Your task to perform on an android device: View the shopping cart on newegg.com. Add "razer thresher" to the cart on newegg.com, then select checkout. Image 0: 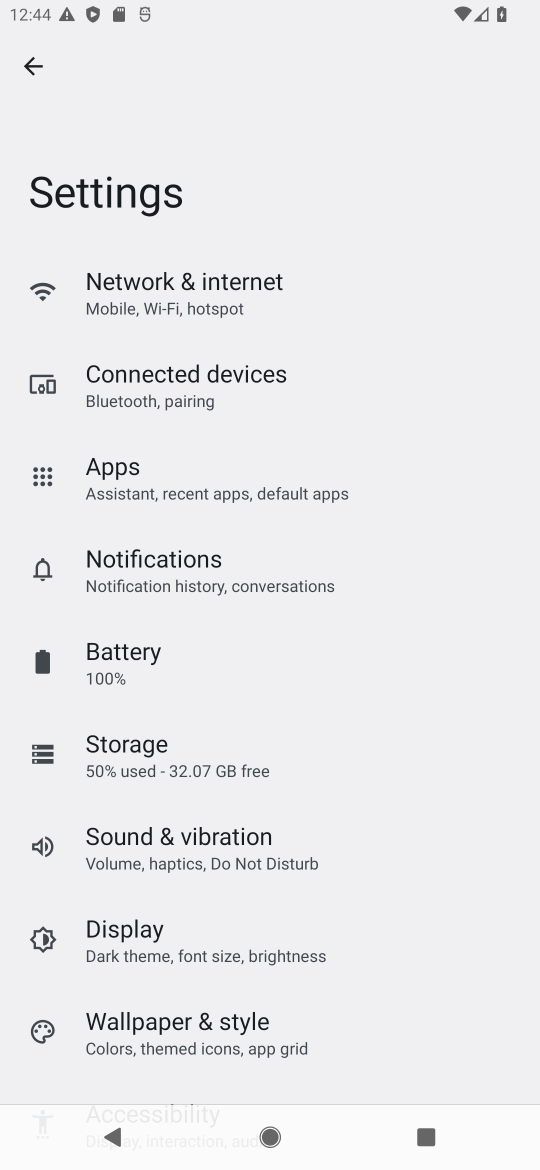
Step 0: press home button
Your task to perform on an android device: View the shopping cart on newegg.com. Add "razer thresher" to the cart on newegg.com, then select checkout. Image 1: 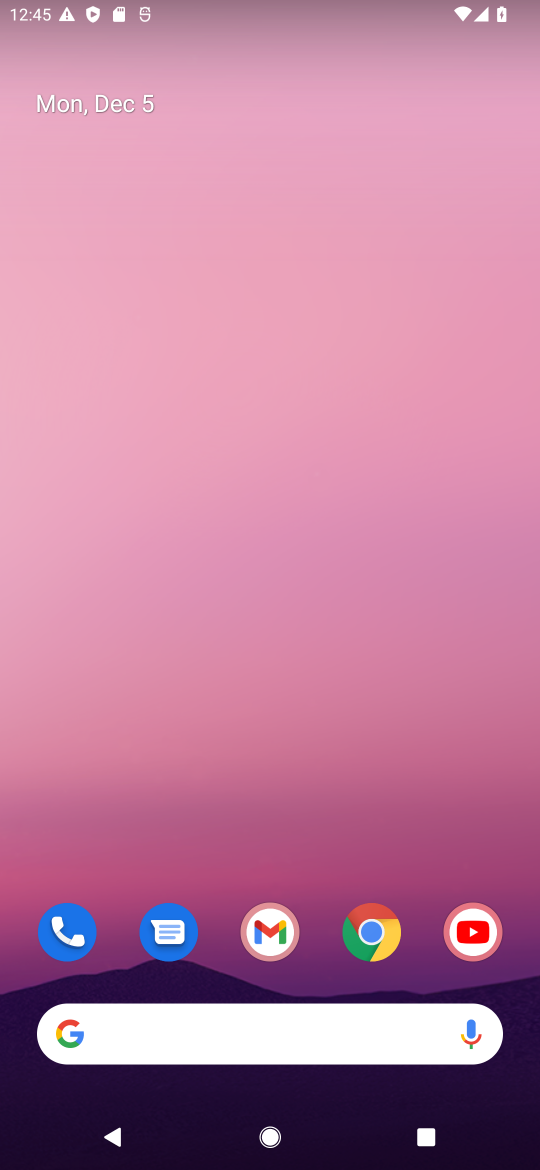
Step 1: click (366, 947)
Your task to perform on an android device: View the shopping cart on newegg.com. Add "razer thresher" to the cart on newegg.com, then select checkout. Image 2: 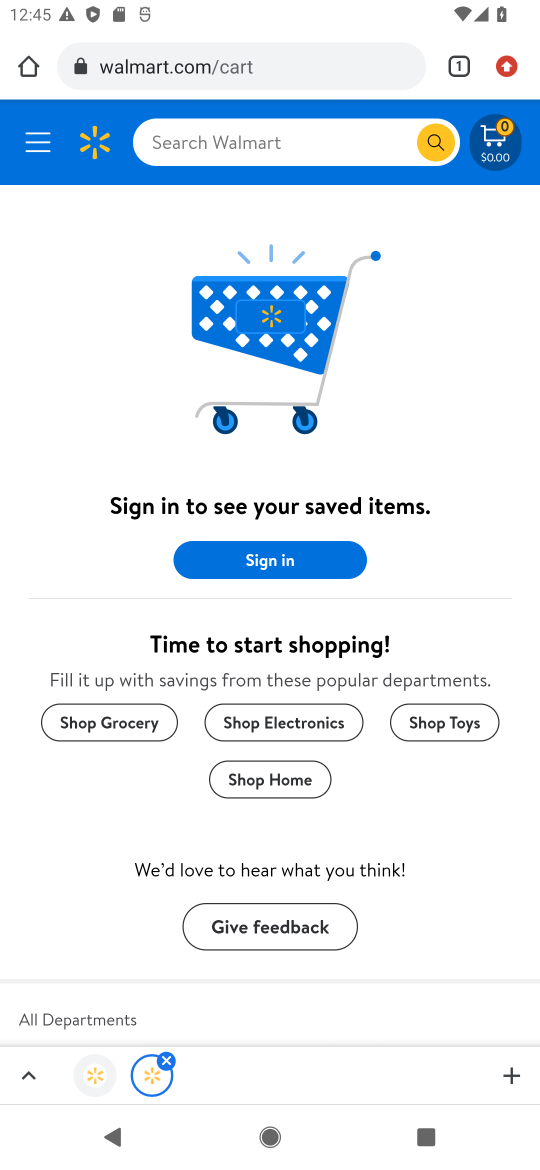
Step 2: click (204, 66)
Your task to perform on an android device: View the shopping cart on newegg.com. Add "razer thresher" to the cart on newegg.com, then select checkout. Image 3: 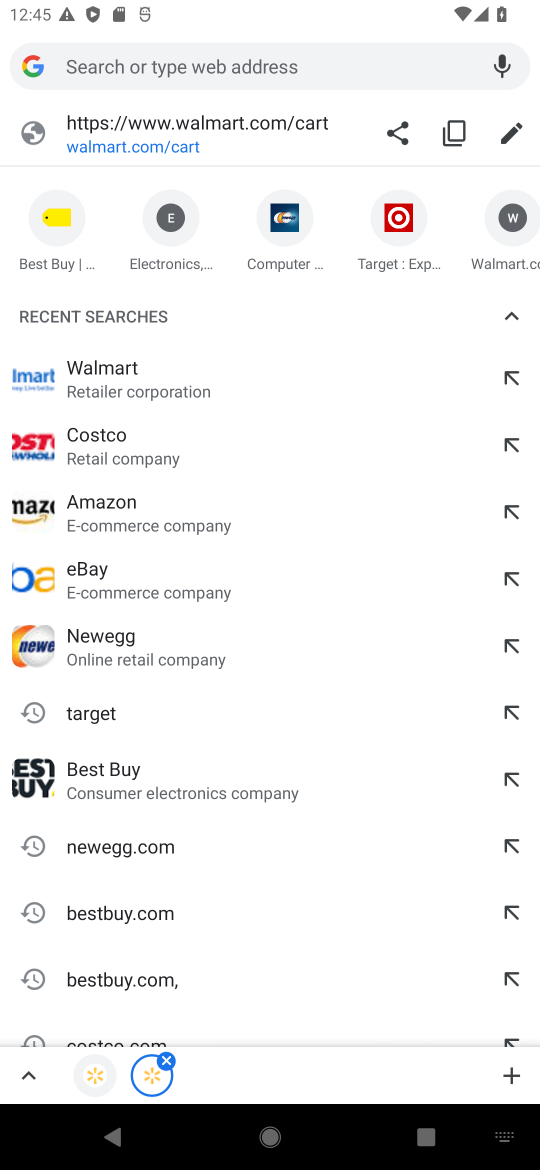
Step 3: type "newegg.com"
Your task to perform on an android device: View the shopping cart on newegg.com. Add "razer thresher" to the cart on newegg.com, then select checkout. Image 4: 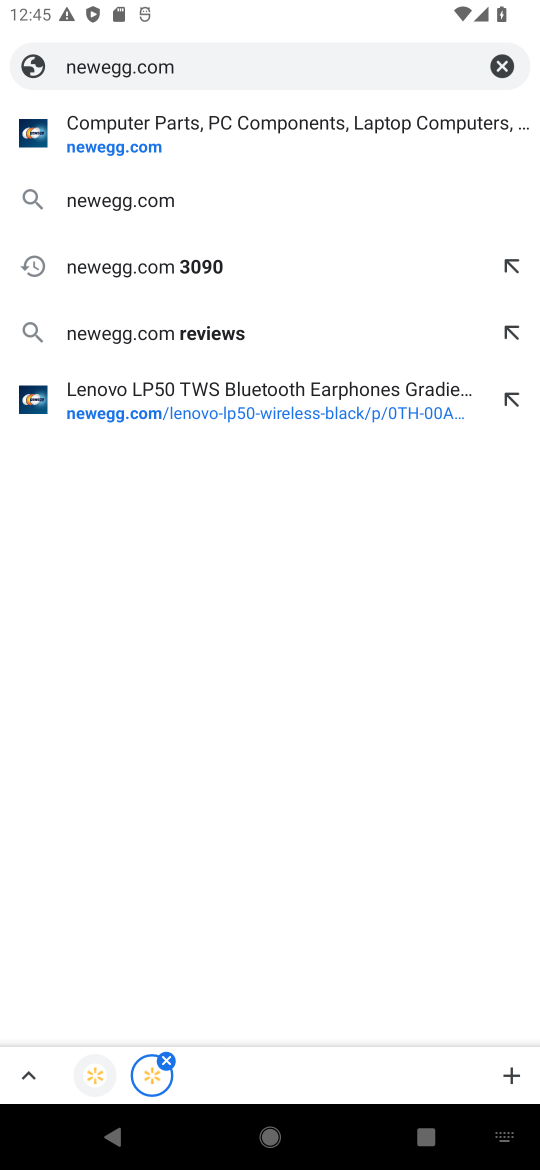
Step 4: click (126, 139)
Your task to perform on an android device: View the shopping cart on newegg.com. Add "razer thresher" to the cart on newegg.com, then select checkout. Image 5: 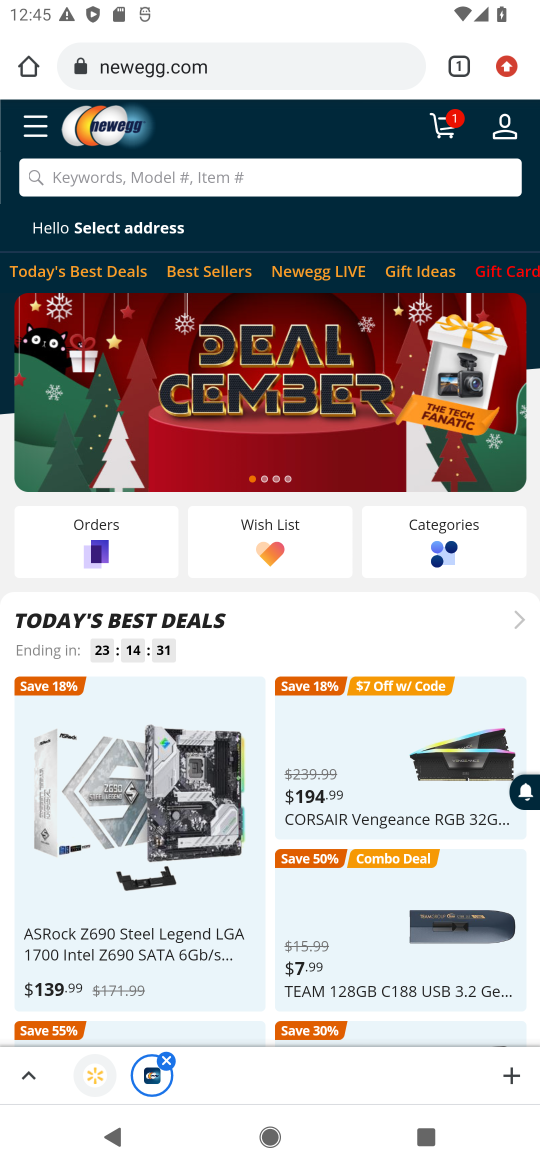
Step 5: click (255, 180)
Your task to perform on an android device: View the shopping cart on newegg.com. Add "razer thresher" to the cart on newegg.com, then select checkout. Image 6: 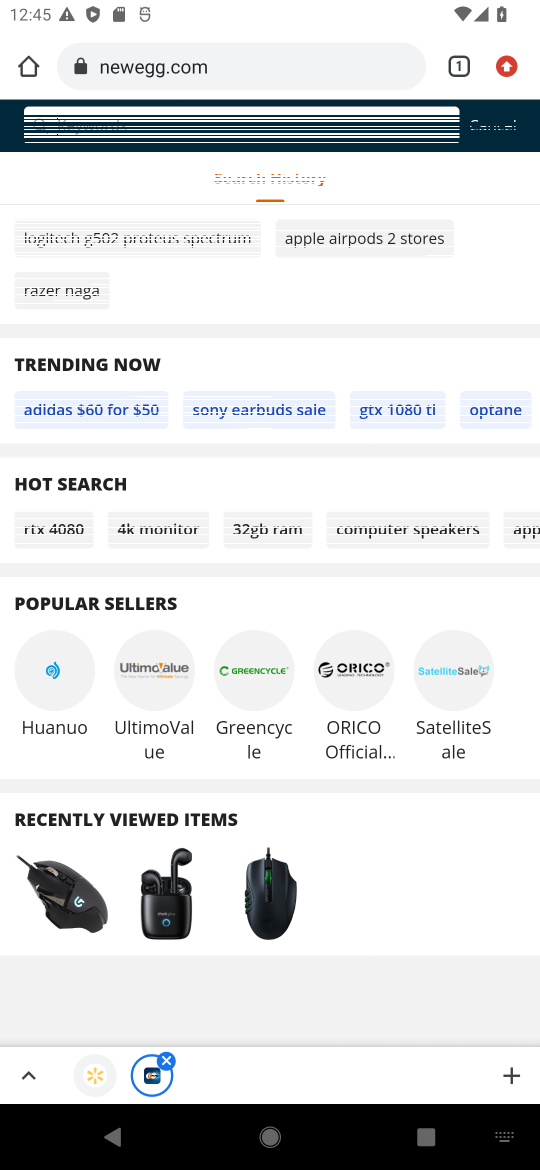
Step 6: type "razer thresher"
Your task to perform on an android device: View the shopping cart on newegg.com. Add "razer thresher" to the cart on newegg.com, then select checkout. Image 7: 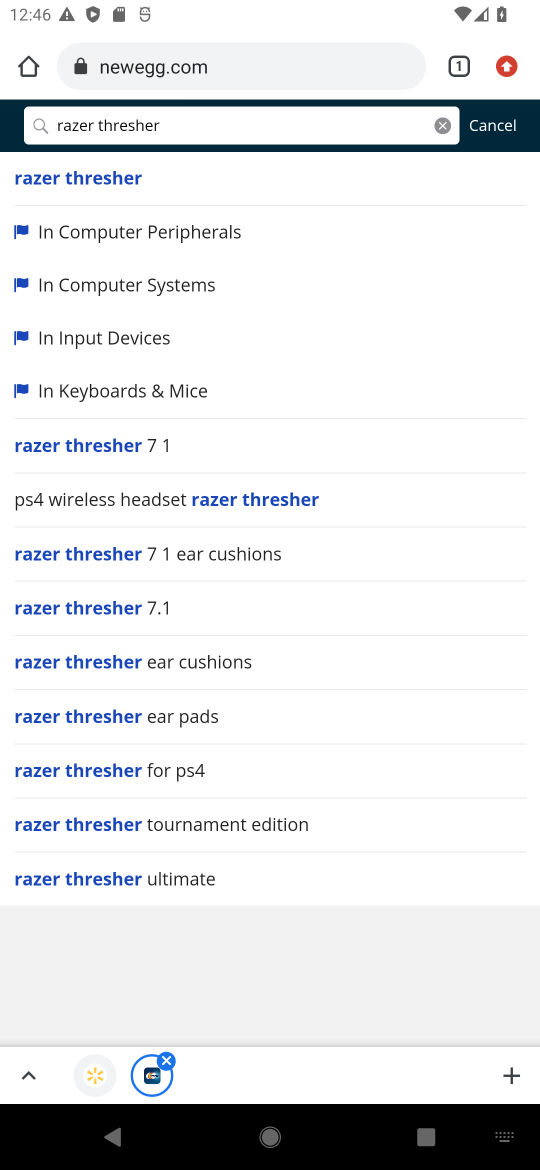
Step 7: click (105, 179)
Your task to perform on an android device: View the shopping cart on newegg.com. Add "razer thresher" to the cart on newegg.com, then select checkout. Image 8: 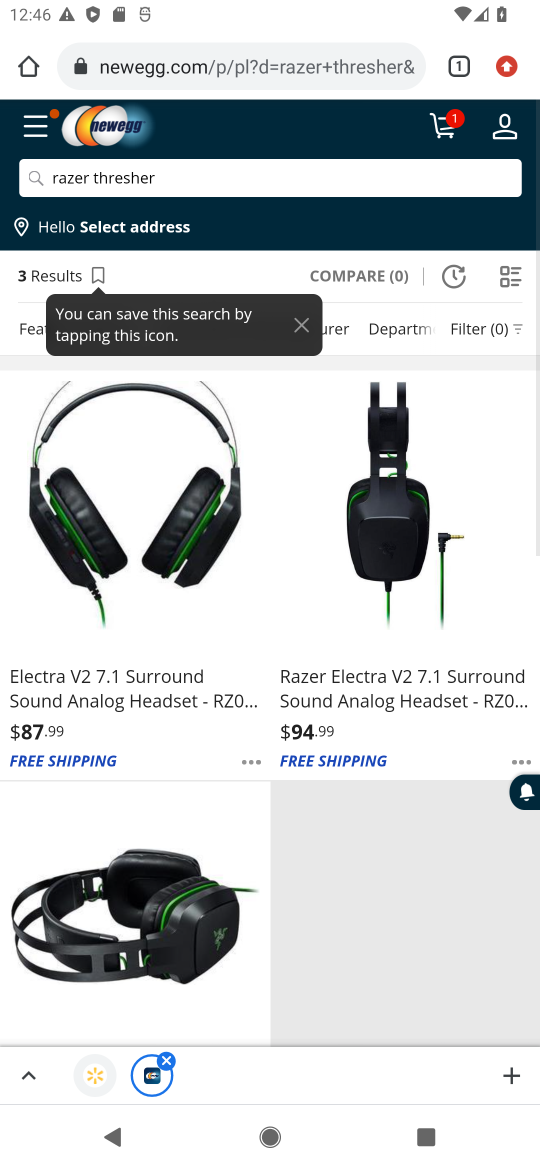
Step 8: click (92, 573)
Your task to perform on an android device: View the shopping cart on newegg.com. Add "razer thresher" to the cart on newegg.com, then select checkout. Image 9: 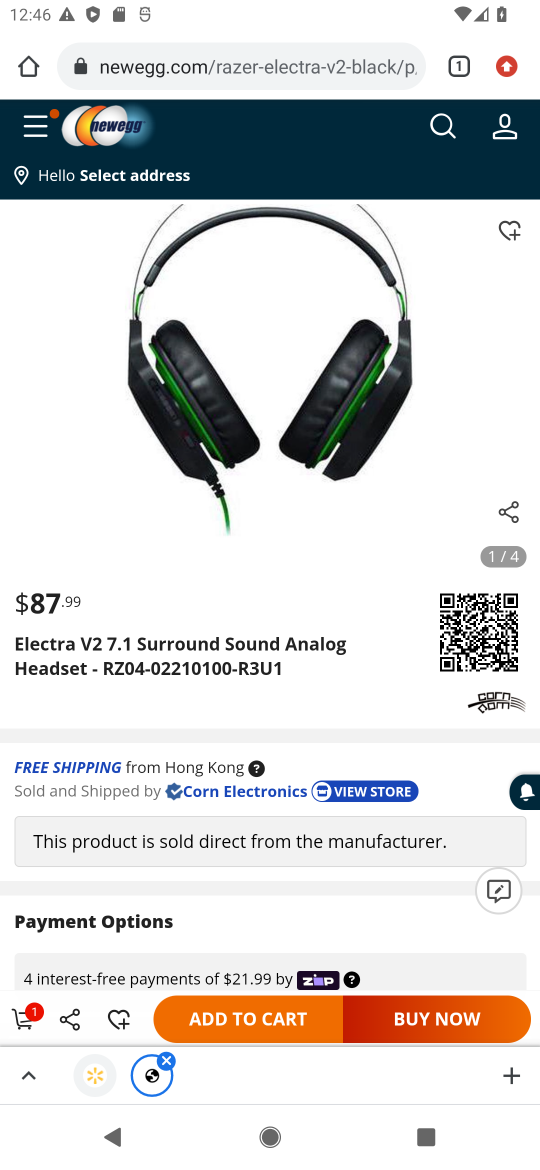
Step 9: click (224, 1021)
Your task to perform on an android device: View the shopping cart on newegg.com. Add "razer thresher" to the cart on newegg.com, then select checkout. Image 10: 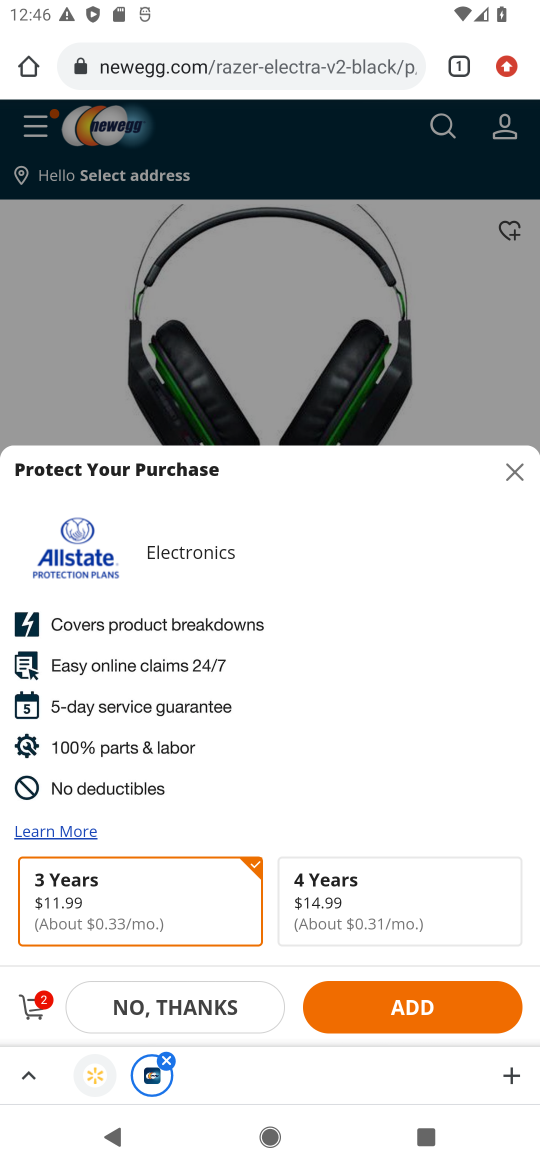
Step 10: click (198, 1000)
Your task to perform on an android device: View the shopping cart on newegg.com. Add "razer thresher" to the cart on newegg.com, then select checkout. Image 11: 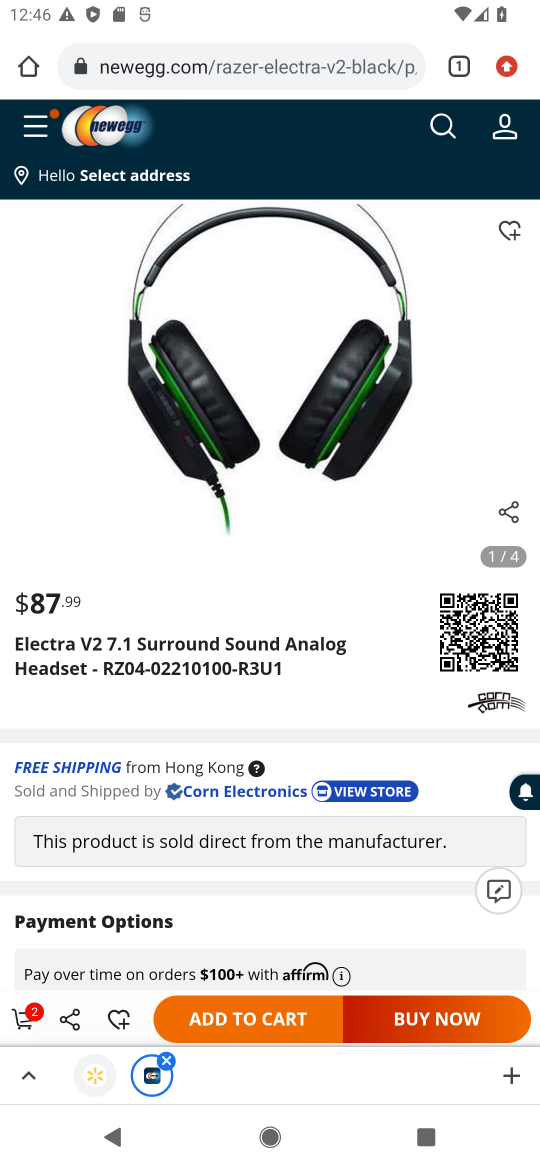
Step 11: task complete